Your task to perform on an android device: change notification settings in the gmail app Image 0: 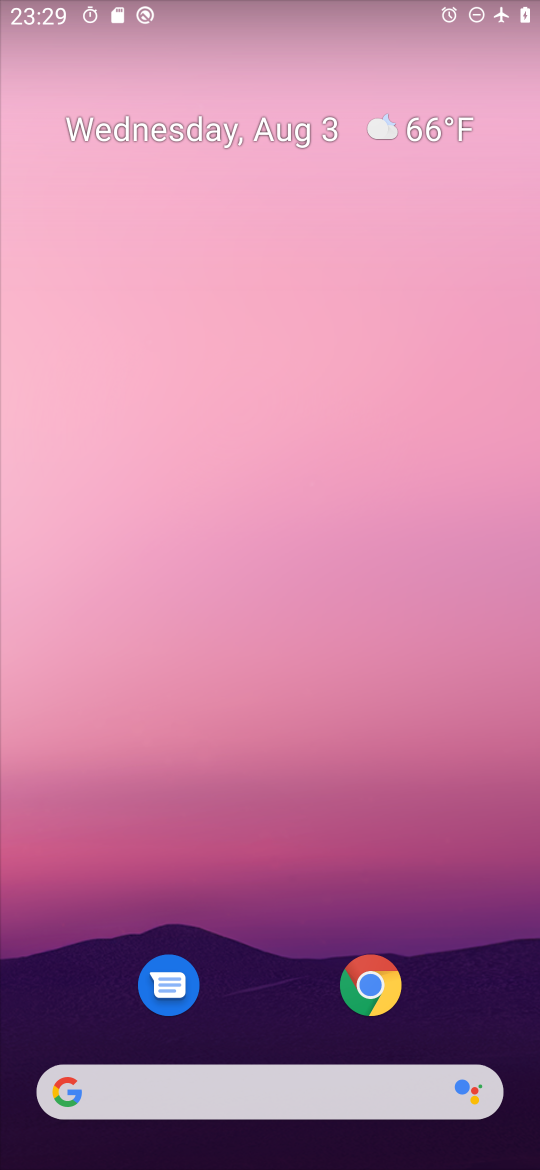
Step 0: drag from (252, 992) to (239, 359)
Your task to perform on an android device: change notification settings in the gmail app Image 1: 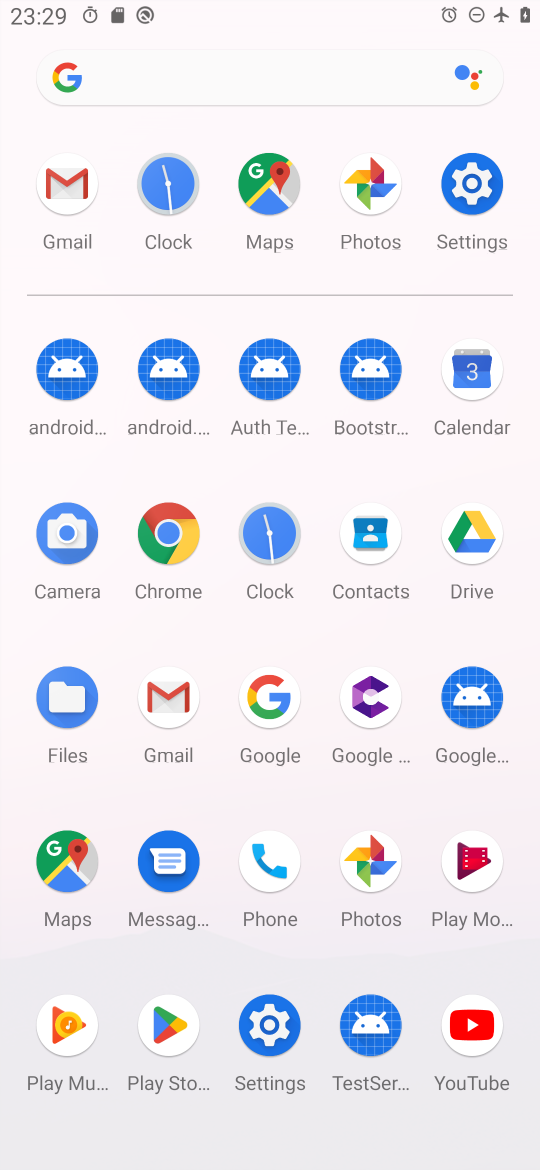
Step 1: click (59, 197)
Your task to perform on an android device: change notification settings in the gmail app Image 2: 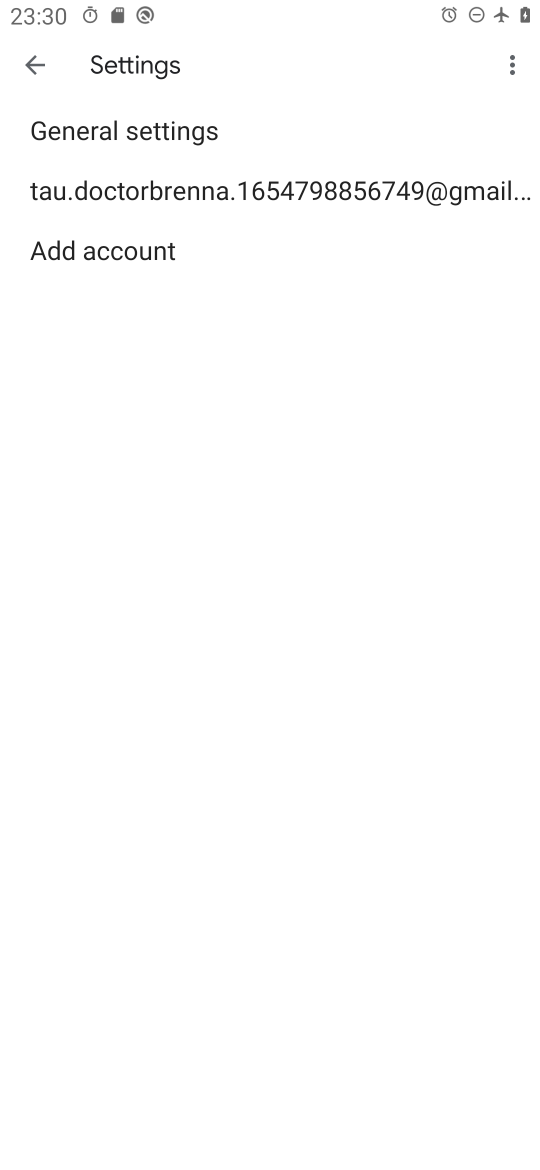
Step 2: click (187, 204)
Your task to perform on an android device: change notification settings in the gmail app Image 3: 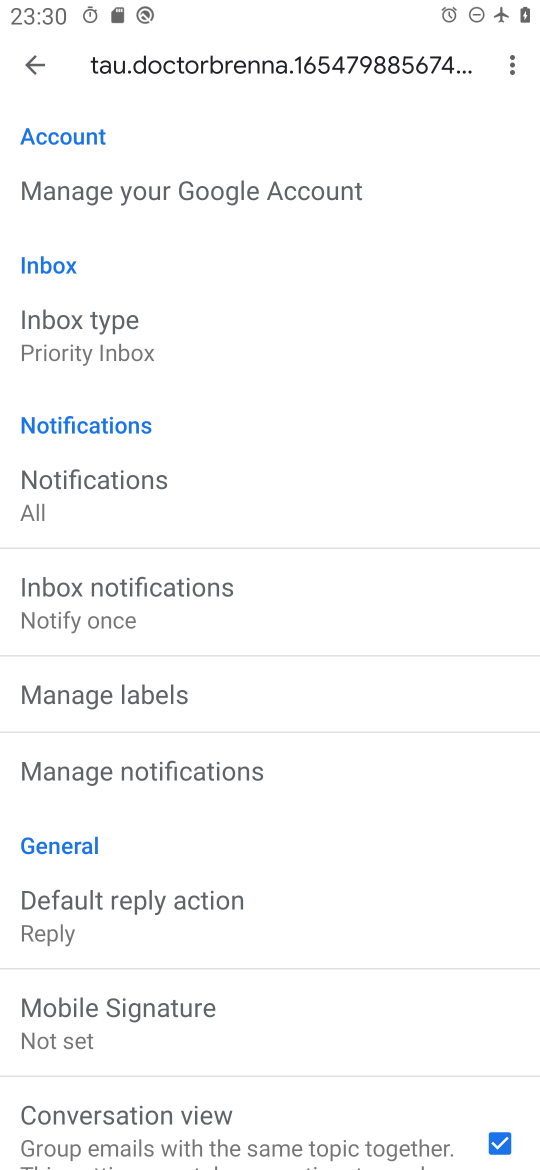
Step 3: click (211, 763)
Your task to perform on an android device: change notification settings in the gmail app Image 4: 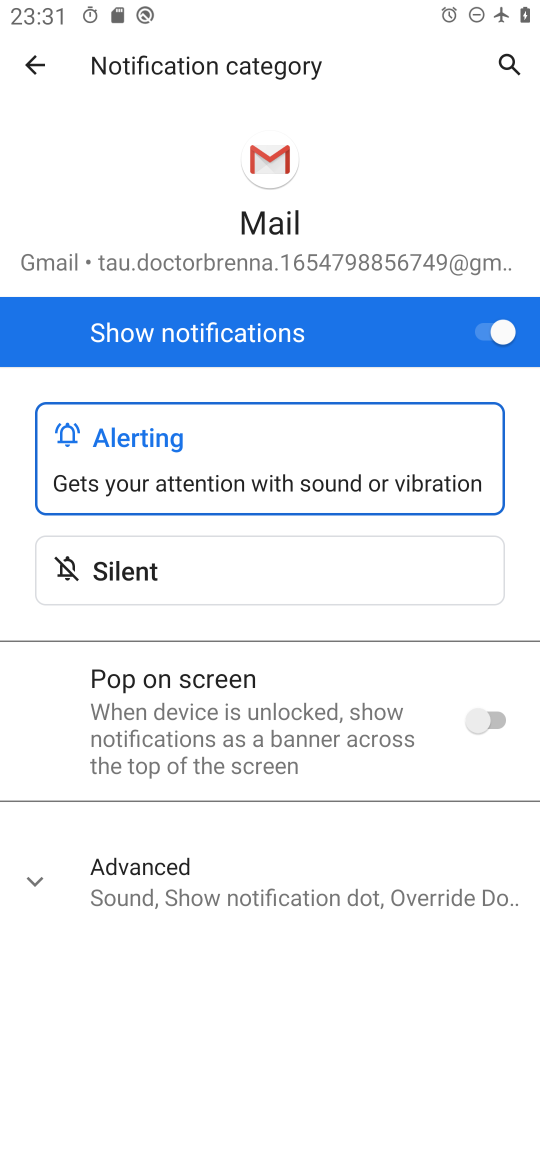
Step 4: click (477, 334)
Your task to perform on an android device: change notification settings in the gmail app Image 5: 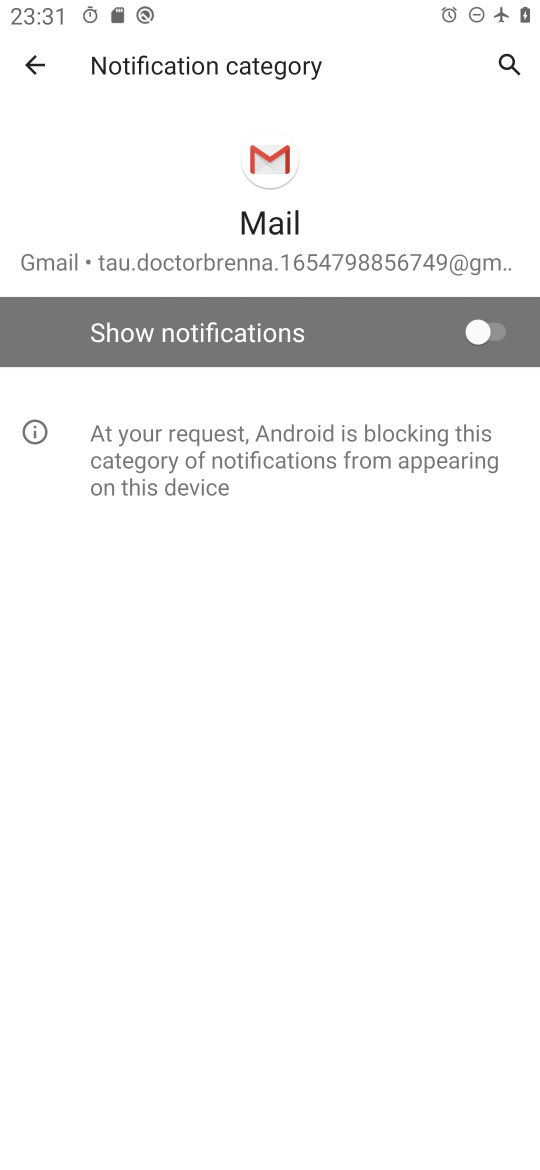
Step 5: task complete